Your task to perform on an android device: What's the weather going to be this weekend? Image 0: 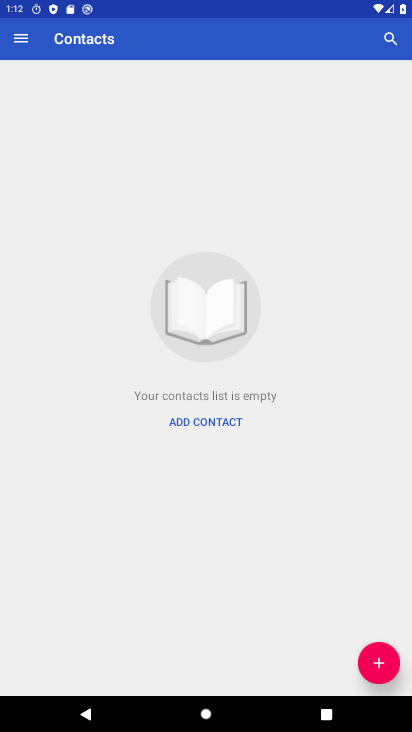
Step 0: drag from (332, 521) to (355, 329)
Your task to perform on an android device: What's the weather going to be this weekend? Image 1: 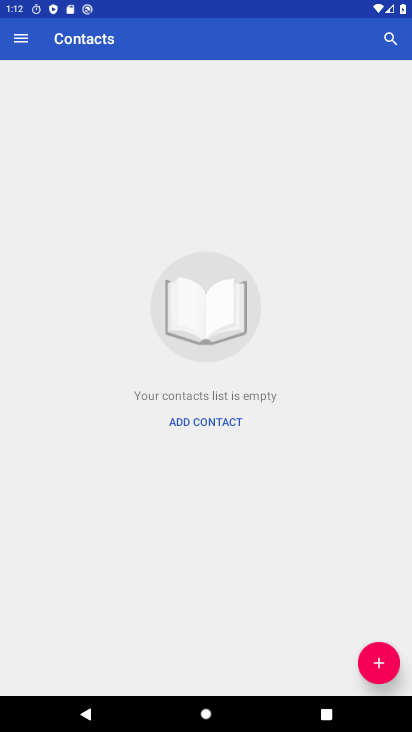
Step 1: click (386, 656)
Your task to perform on an android device: What's the weather going to be this weekend? Image 2: 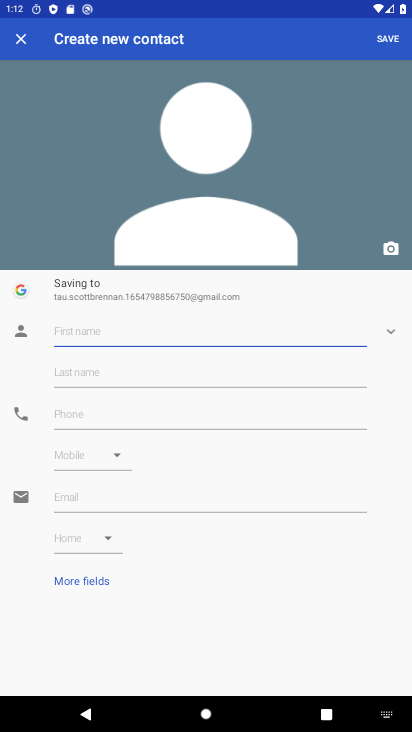
Step 2: drag from (281, 563) to (325, 330)
Your task to perform on an android device: What's the weather going to be this weekend? Image 3: 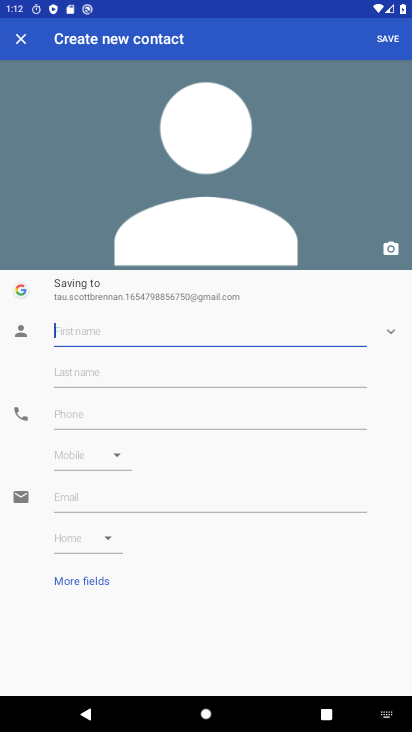
Step 3: press home button
Your task to perform on an android device: What's the weather going to be this weekend? Image 4: 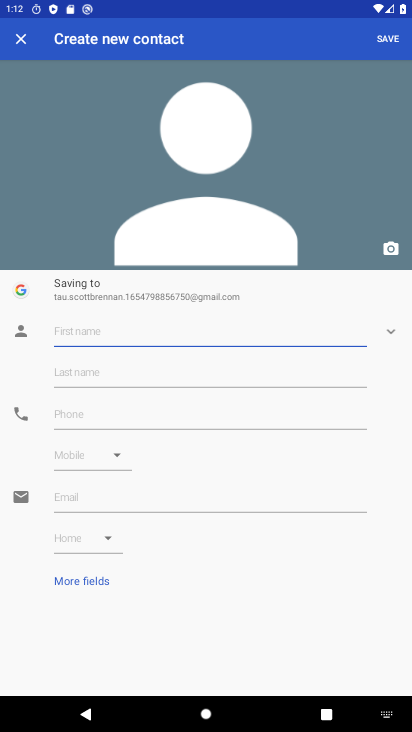
Step 4: press home button
Your task to perform on an android device: What's the weather going to be this weekend? Image 5: 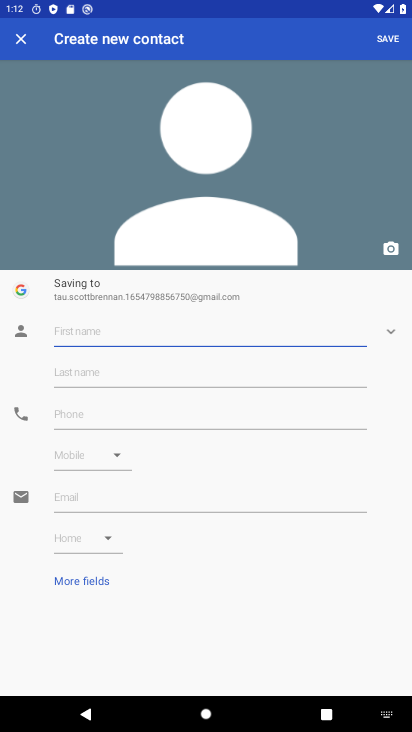
Step 5: drag from (237, 562) to (323, 127)
Your task to perform on an android device: What's the weather going to be this weekend? Image 6: 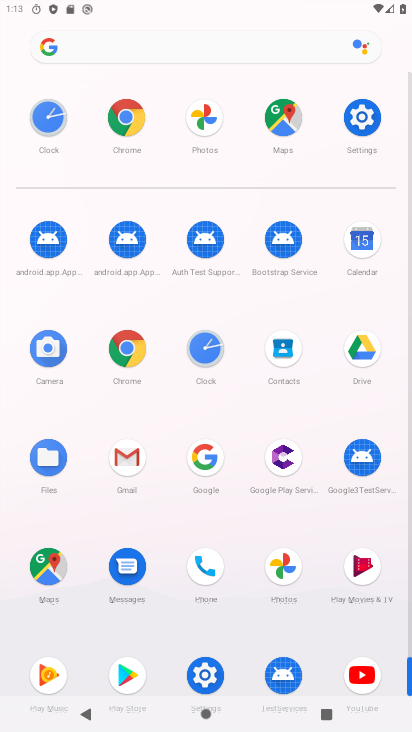
Step 6: click (193, 37)
Your task to perform on an android device: What's the weather going to be this weekend? Image 7: 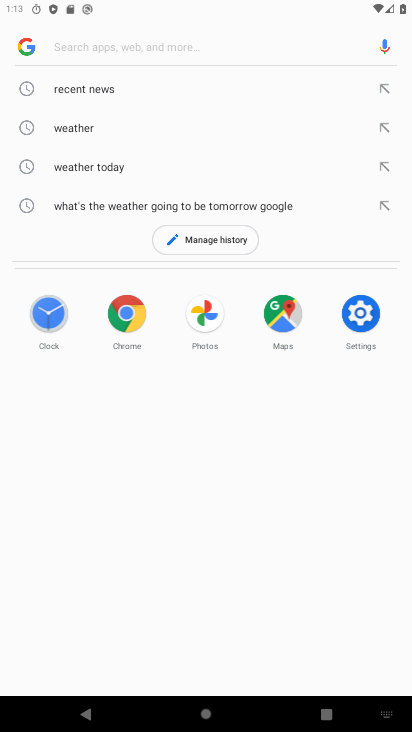
Step 7: click (106, 99)
Your task to perform on an android device: What's the weather going to be this weekend? Image 8: 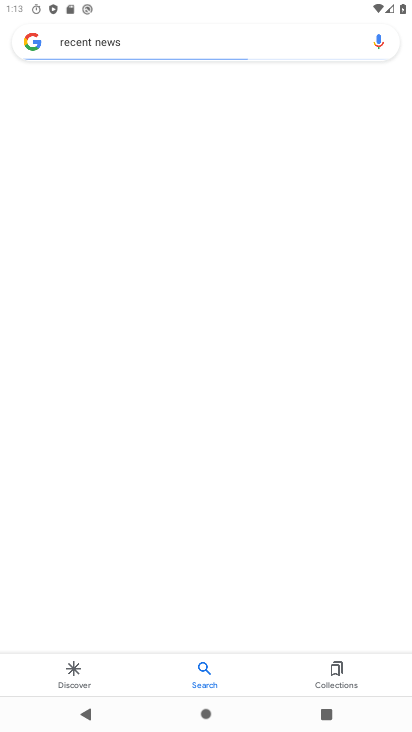
Step 8: task complete